Your task to perform on an android device: Go to Android settings Image 0: 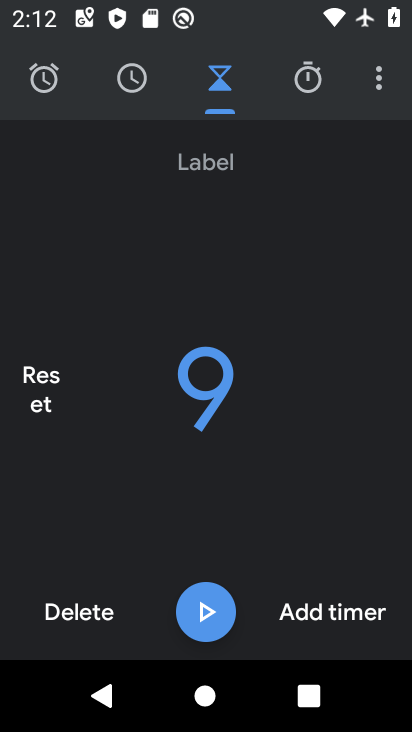
Step 0: press home button
Your task to perform on an android device: Go to Android settings Image 1: 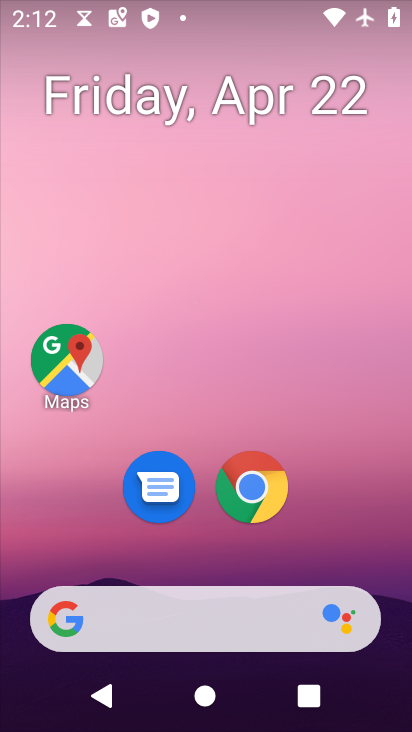
Step 1: drag from (164, 605) to (284, 148)
Your task to perform on an android device: Go to Android settings Image 2: 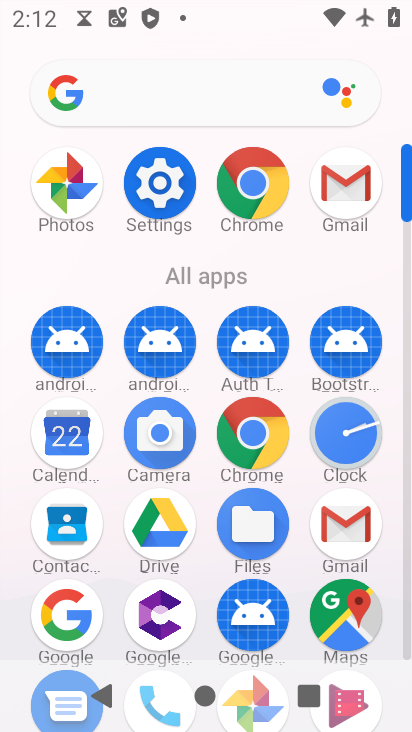
Step 2: click (167, 203)
Your task to perform on an android device: Go to Android settings Image 3: 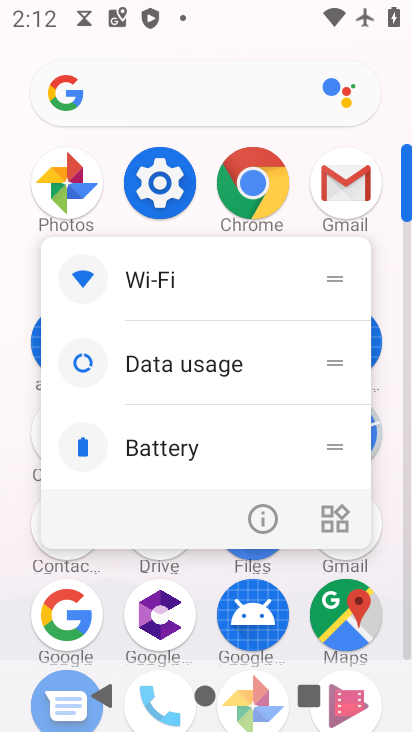
Step 3: click (158, 193)
Your task to perform on an android device: Go to Android settings Image 4: 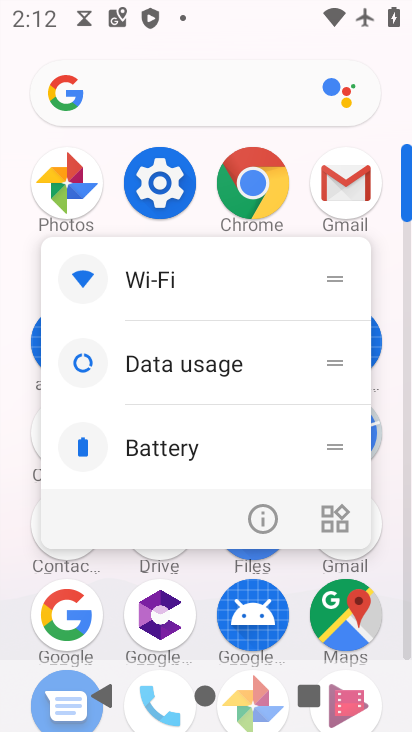
Step 4: click (161, 190)
Your task to perform on an android device: Go to Android settings Image 5: 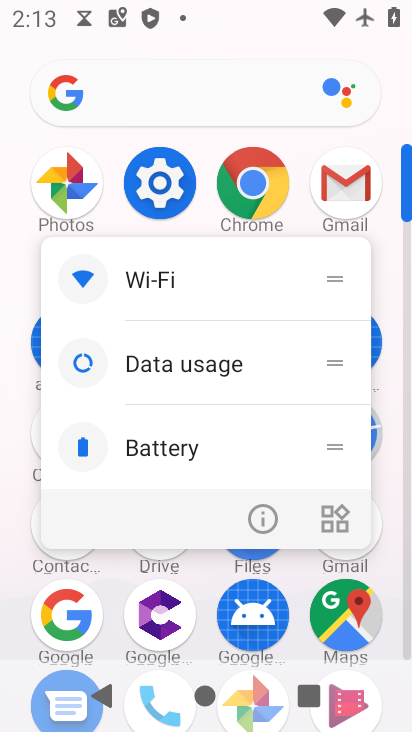
Step 5: click (156, 195)
Your task to perform on an android device: Go to Android settings Image 6: 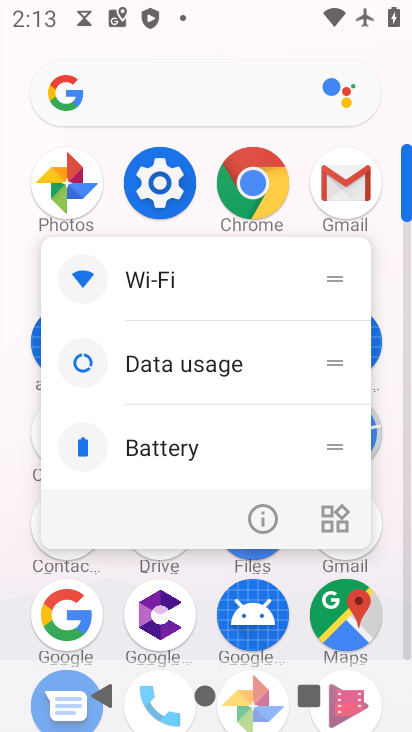
Step 6: click (163, 187)
Your task to perform on an android device: Go to Android settings Image 7: 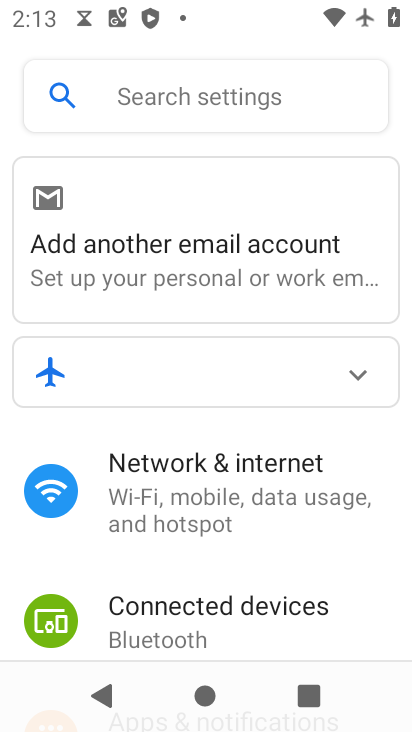
Step 7: task complete